Your task to perform on an android device: turn off javascript in the chrome app Image 0: 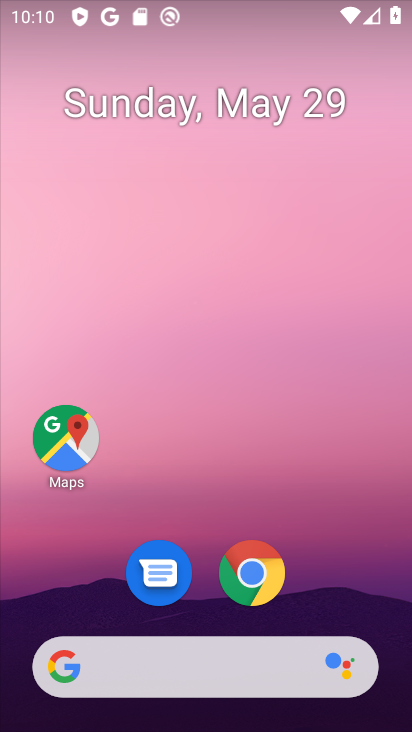
Step 0: drag from (81, 616) to (244, 132)
Your task to perform on an android device: turn off javascript in the chrome app Image 1: 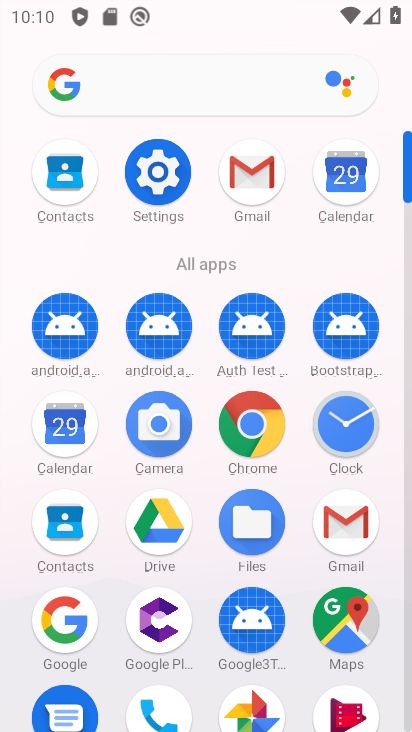
Step 1: click (261, 409)
Your task to perform on an android device: turn off javascript in the chrome app Image 2: 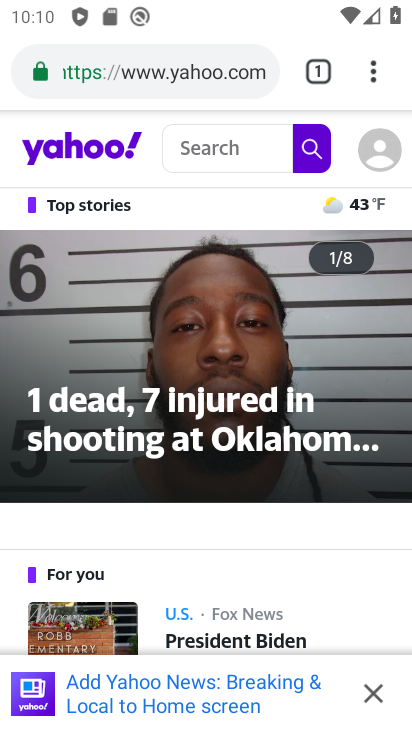
Step 2: drag from (381, 76) to (218, 579)
Your task to perform on an android device: turn off javascript in the chrome app Image 3: 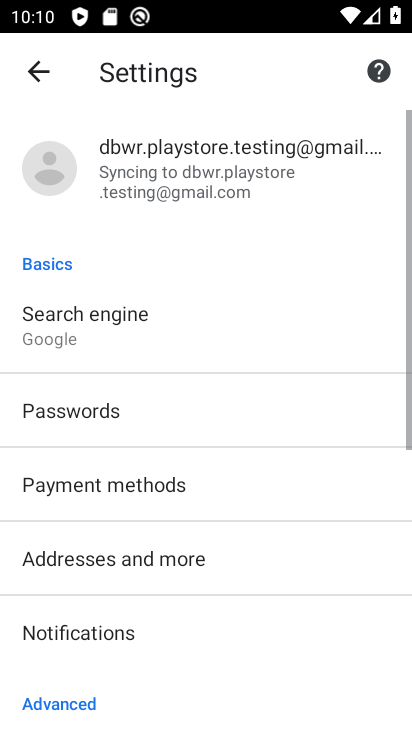
Step 3: drag from (124, 633) to (292, 187)
Your task to perform on an android device: turn off javascript in the chrome app Image 4: 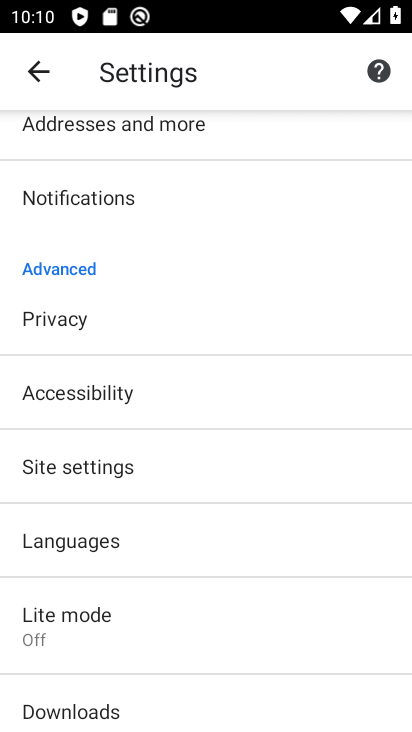
Step 4: click (188, 470)
Your task to perform on an android device: turn off javascript in the chrome app Image 5: 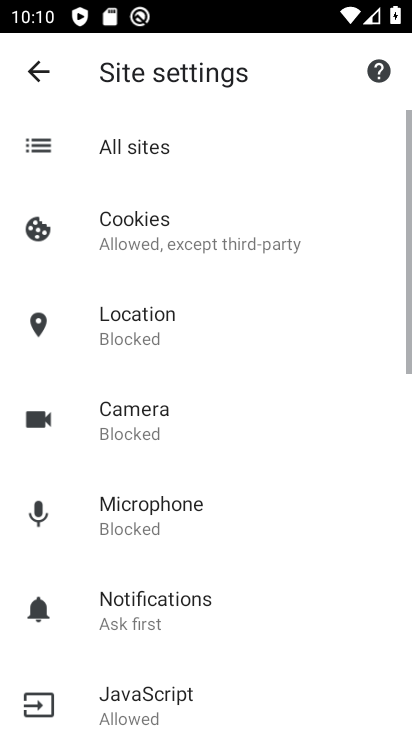
Step 5: drag from (150, 635) to (249, 306)
Your task to perform on an android device: turn off javascript in the chrome app Image 6: 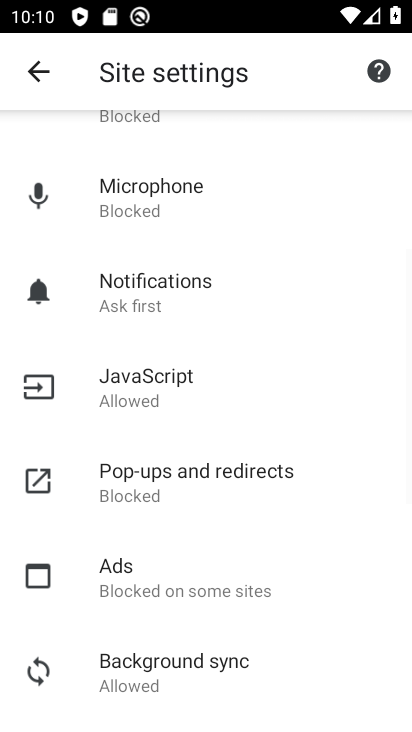
Step 6: click (207, 375)
Your task to perform on an android device: turn off javascript in the chrome app Image 7: 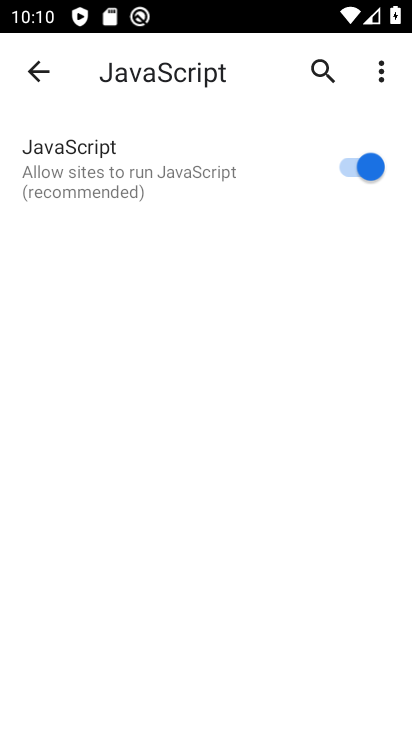
Step 7: click (349, 179)
Your task to perform on an android device: turn off javascript in the chrome app Image 8: 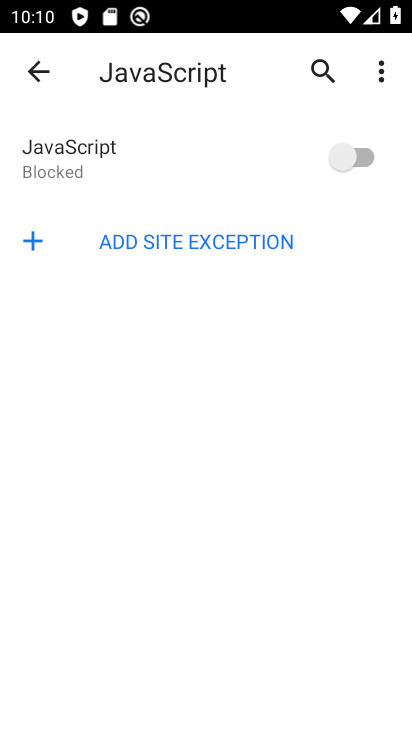
Step 8: task complete